Your task to perform on an android device: Search for pizza restaurants on Maps Image 0: 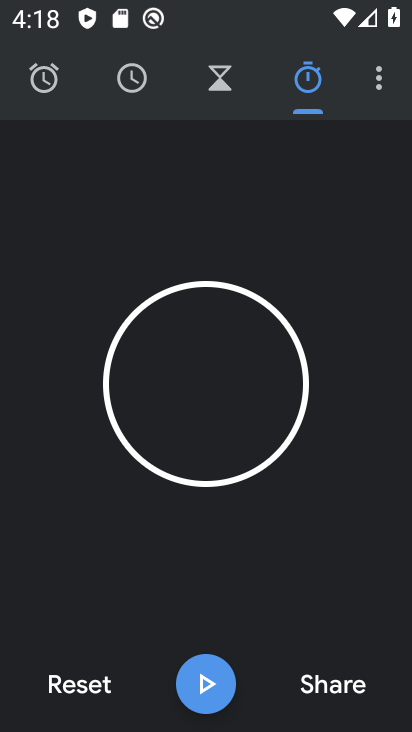
Step 0: press home button
Your task to perform on an android device: Search for pizza restaurants on Maps Image 1: 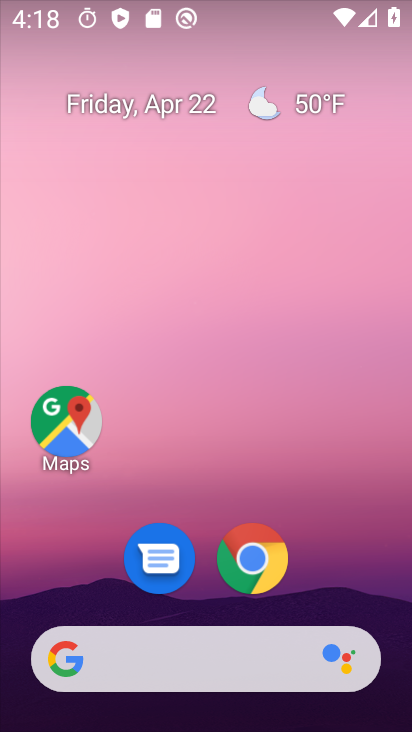
Step 1: click (39, 453)
Your task to perform on an android device: Search for pizza restaurants on Maps Image 2: 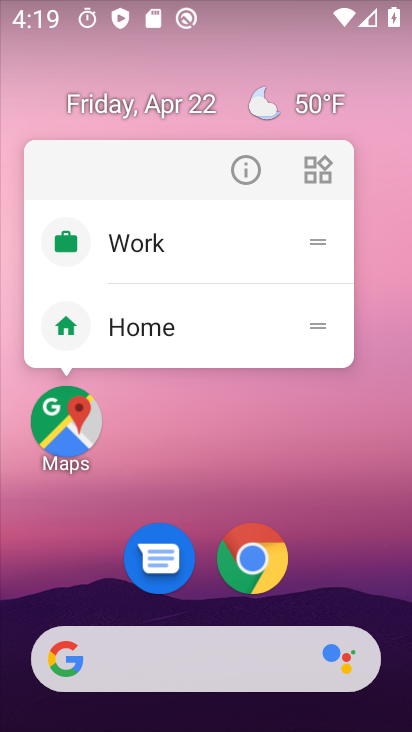
Step 2: click (55, 437)
Your task to perform on an android device: Search for pizza restaurants on Maps Image 3: 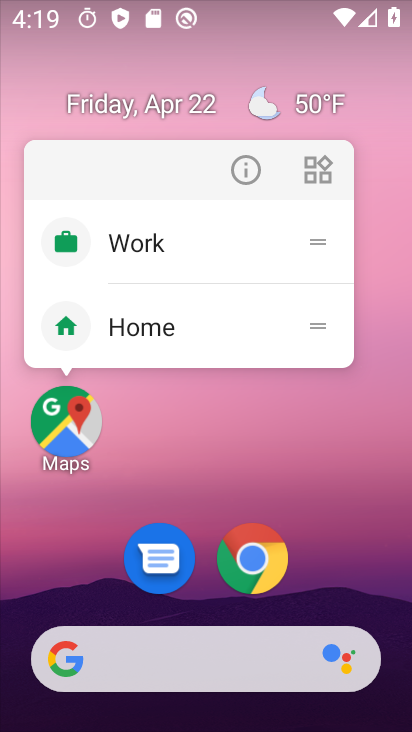
Step 3: click (56, 436)
Your task to perform on an android device: Search for pizza restaurants on Maps Image 4: 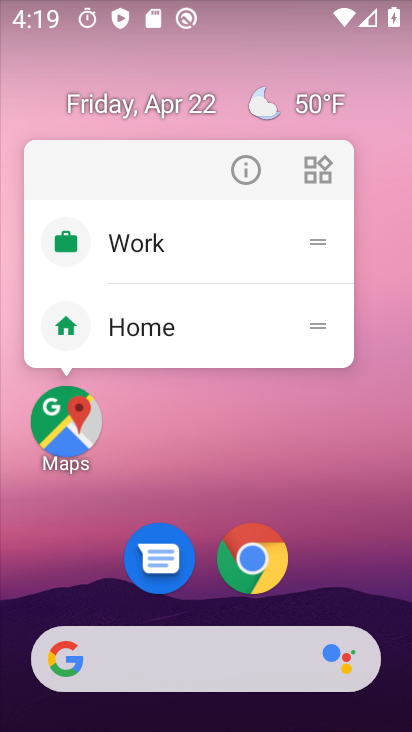
Step 4: click (63, 426)
Your task to perform on an android device: Search for pizza restaurants on Maps Image 5: 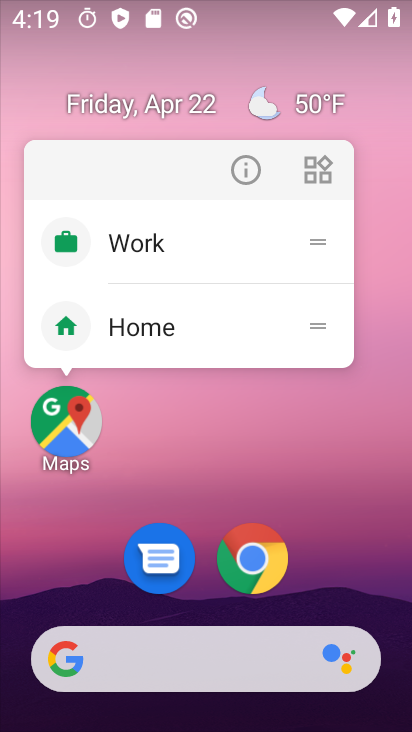
Step 5: click (63, 426)
Your task to perform on an android device: Search for pizza restaurants on Maps Image 6: 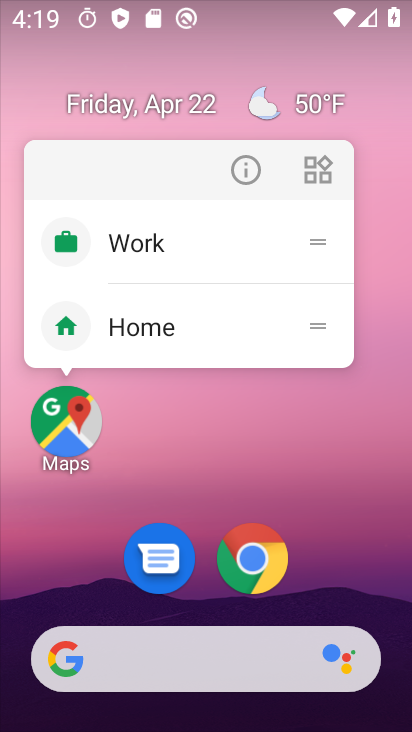
Step 6: click (63, 425)
Your task to perform on an android device: Search for pizza restaurants on Maps Image 7: 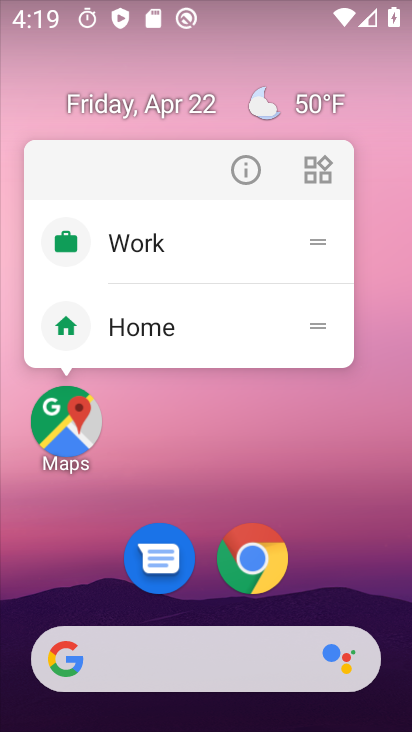
Step 7: click (63, 420)
Your task to perform on an android device: Search for pizza restaurants on Maps Image 8: 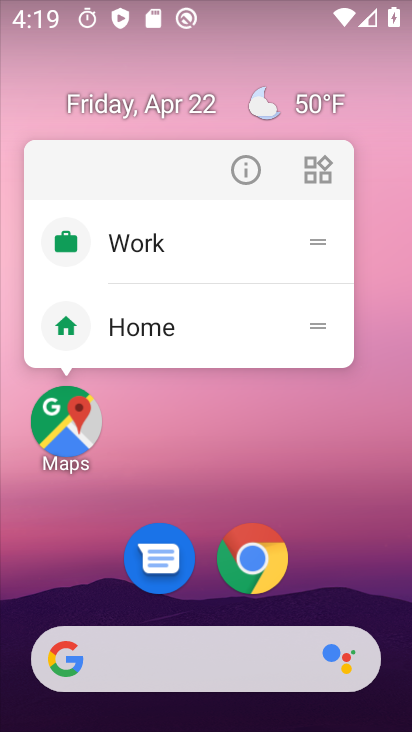
Step 8: click (65, 418)
Your task to perform on an android device: Search for pizza restaurants on Maps Image 9: 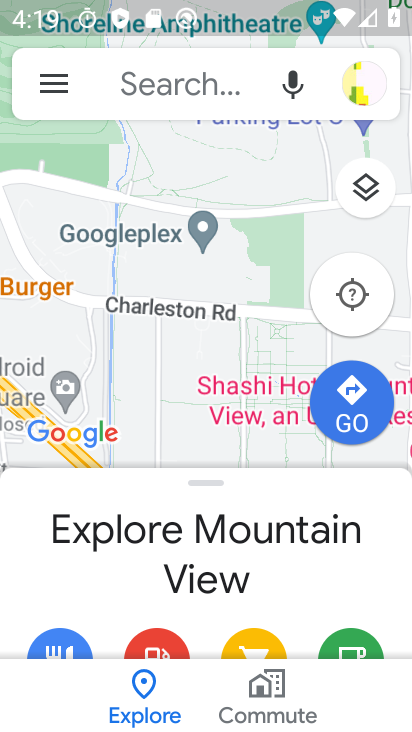
Step 9: click (145, 89)
Your task to perform on an android device: Search for pizza restaurants on Maps Image 10: 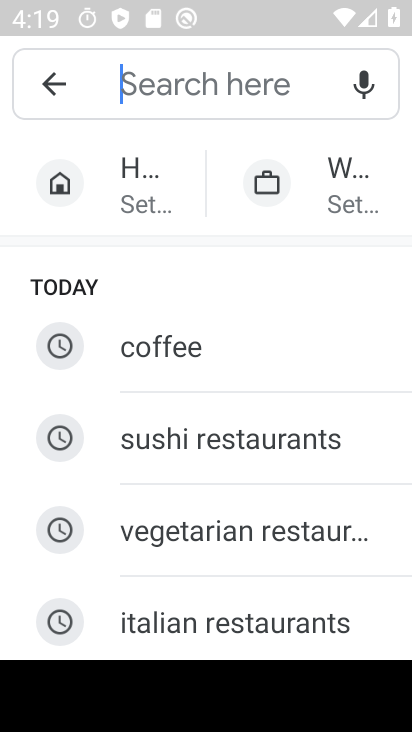
Step 10: drag from (203, 580) to (202, 305)
Your task to perform on an android device: Search for pizza restaurants on Maps Image 11: 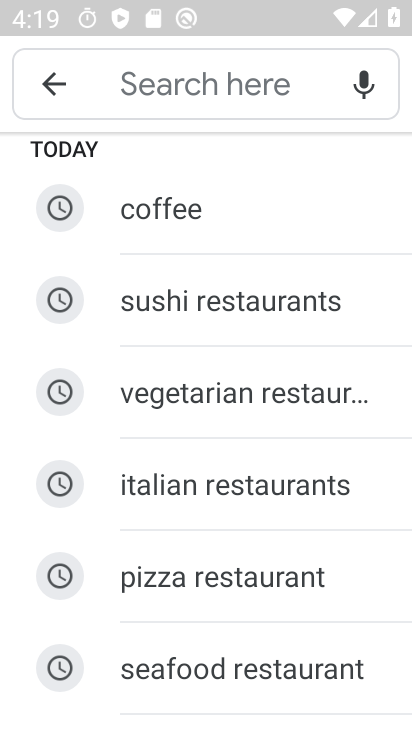
Step 11: click (191, 568)
Your task to perform on an android device: Search for pizza restaurants on Maps Image 12: 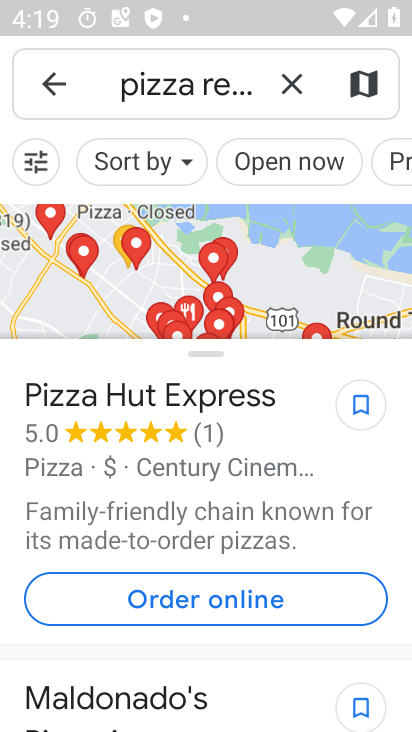
Step 12: task complete